Your task to perform on an android device: check the backup settings in the google photos Image 0: 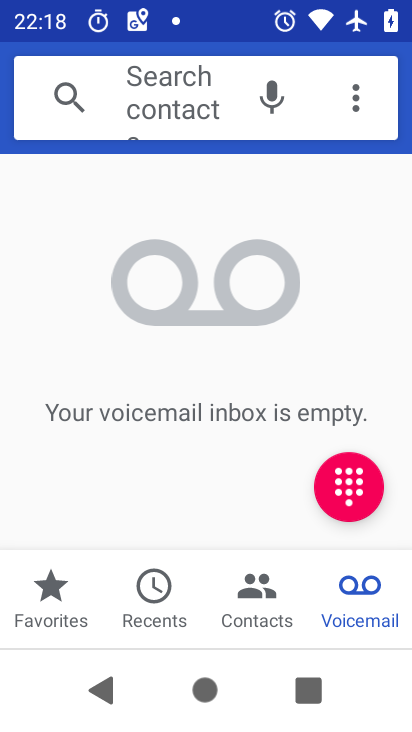
Step 0: press home button
Your task to perform on an android device: check the backup settings in the google photos Image 1: 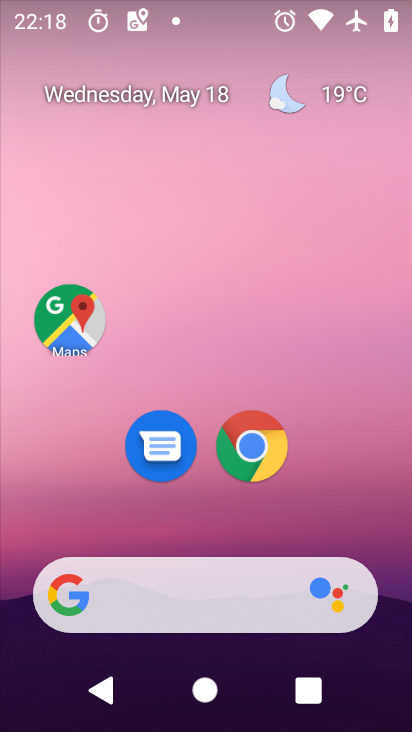
Step 1: drag from (148, 611) to (300, 132)
Your task to perform on an android device: check the backup settings in the google photos Image 2: 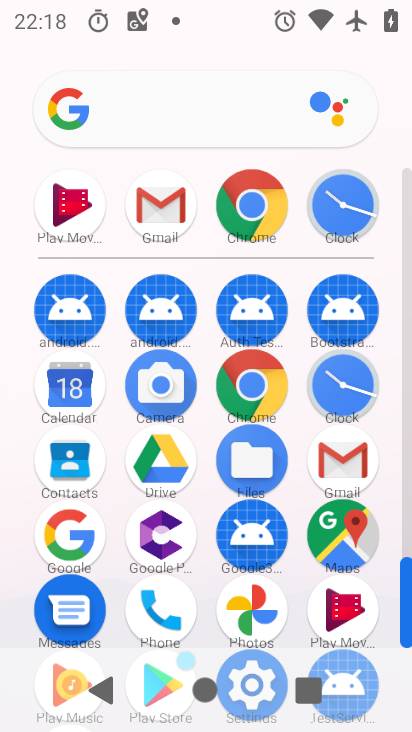
Step 2: click (261, 611)
Your task to perform on an android device: check the backup settings in the google photos Image 3: 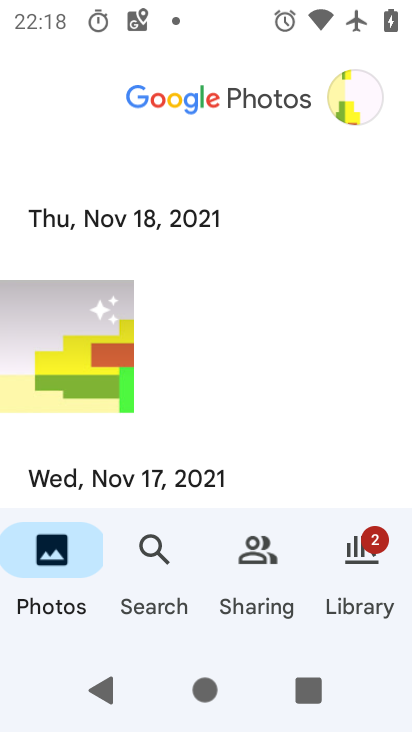
Step 3: click (352, 108)
Your task to perform on an android device: check the backup settings in the google photos Image 4: 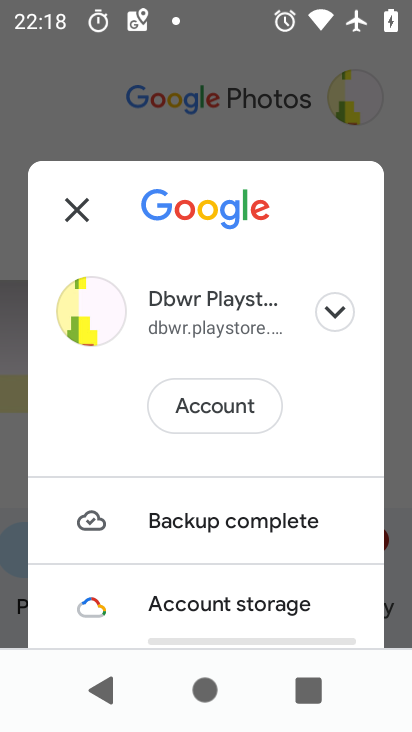
Step 4: drag from (196, 579) to (328, 249)
Your task to perform on an android device: check the backup settings in the google photos Image 5: 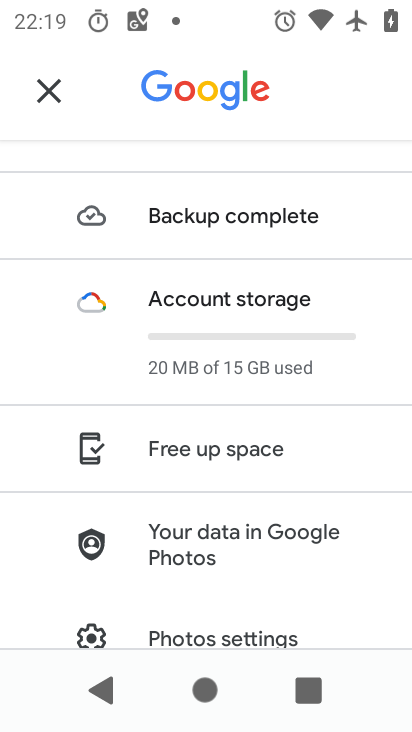
Step 5: drag from (251, 552) to (321, 161)
Your task to perform on an android device: check the backup settings in the google photos Image 6: 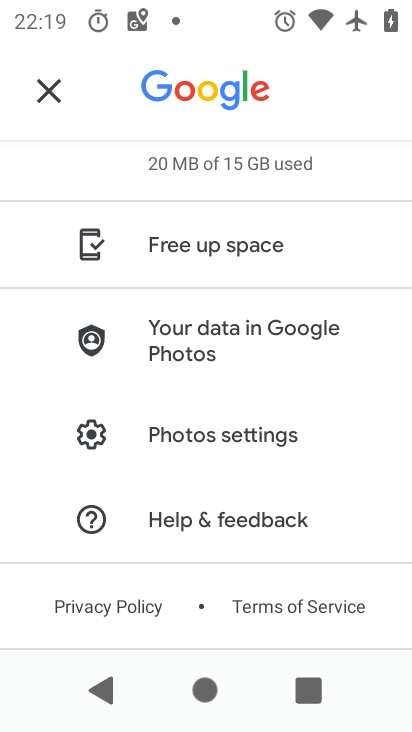
Step 6: click (238, 436)
Your task to perform on an android device: check the backup settings in the google photos Image 7: 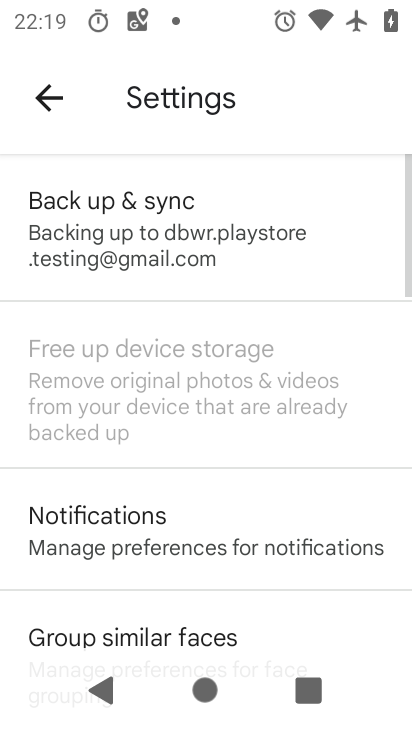
Step 7: click (180, 232)
Your task to perform on an android device: check the backup settings in the google photos Image 8: 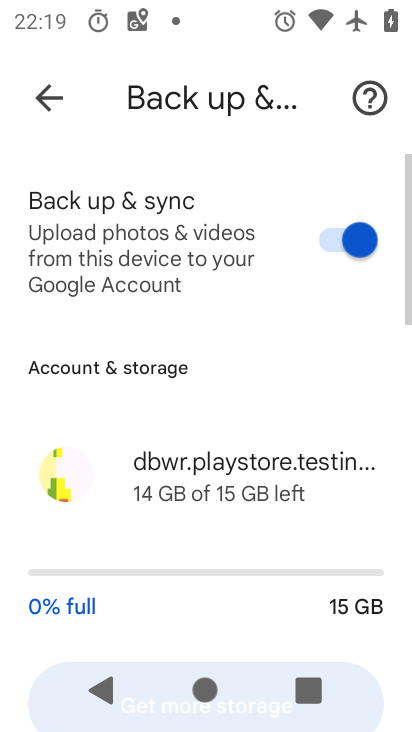
Step 8: task complete